Your task to perform on an android device: Go to accessibility settings Image 0: 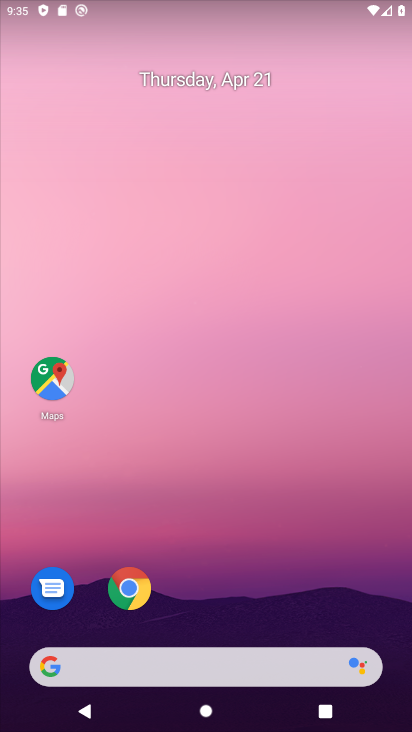
Step 0: drag from (287, 562) to (248, 1)
Your task to perform on an android device: Go to accessibility settings Image 1: 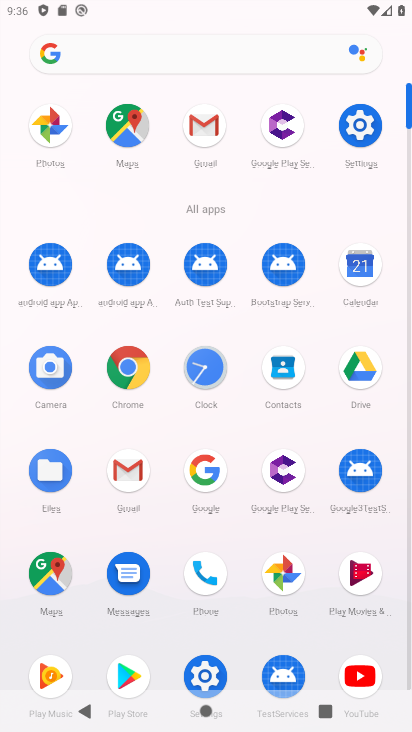
Step 1: drag from (240, 543) to (207, 114)
Your task to perform on an android device: Go to accessibility settings Image 2: 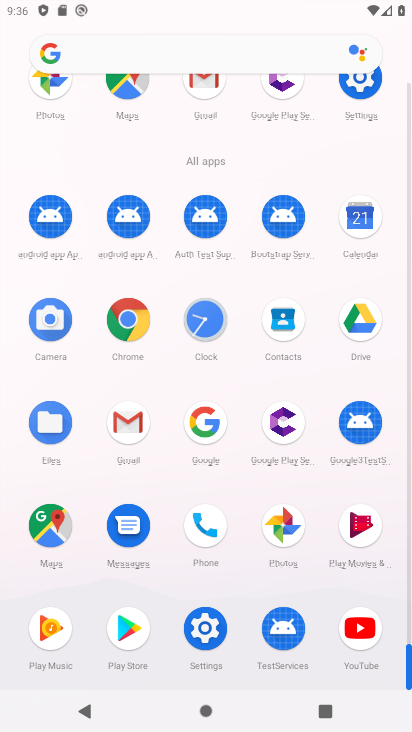
Step 2: click (212, 627)
Your task to perform on an android device: Go to accessibility settings Image 3: 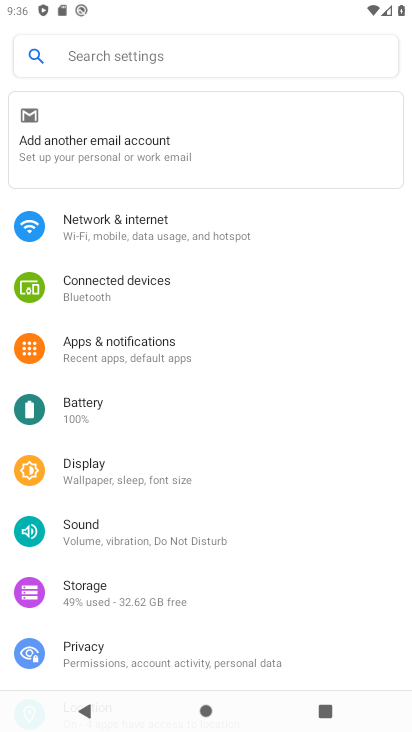
Step 3: drag from (164, 641) to (217, 149)
Your task to perform on an android device: Go to accessibility settings Image 4: 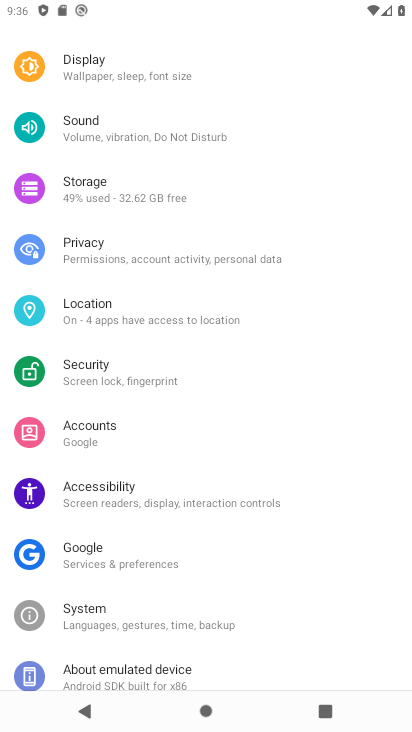
Step 4: click (161, 504)
Your task to perform on an android device: Go to accessibility settings Image 5: 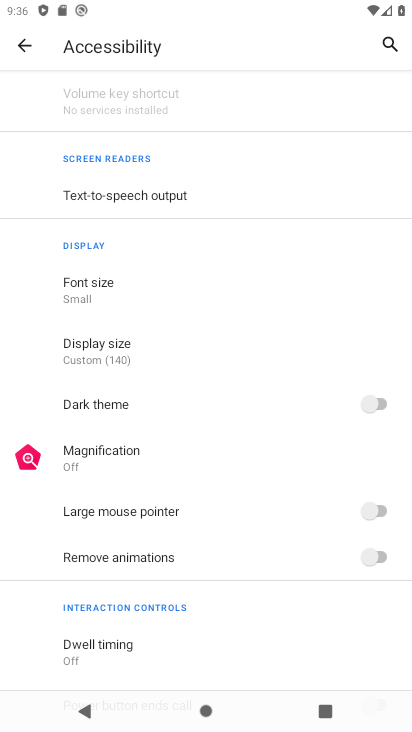
Step 5: task complete